Your task to perform on an android device: What's on my calendar tomorrow? Image 0: 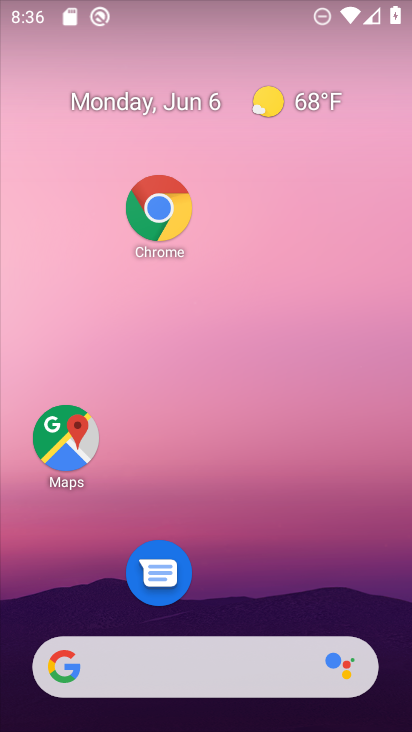
Step 0: drag from (299, 706) to (223, 261)
Your task to perform on an android device: What's on my calendar tomorrow? Image 1: 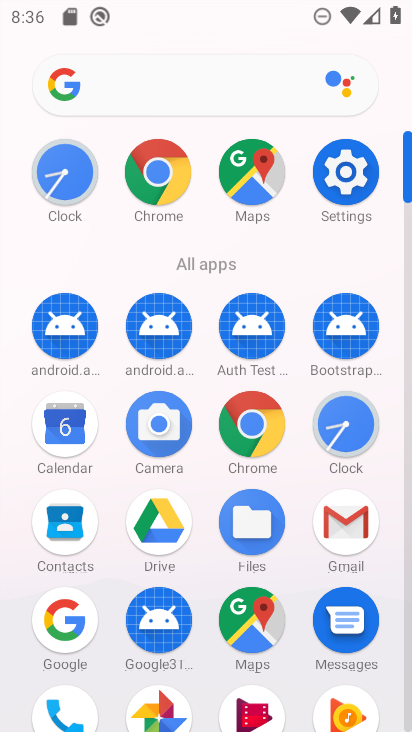
Step 1: click (59, 427)
Your task to perform on an android device: What's on my calendar tomorrow? Image 2: 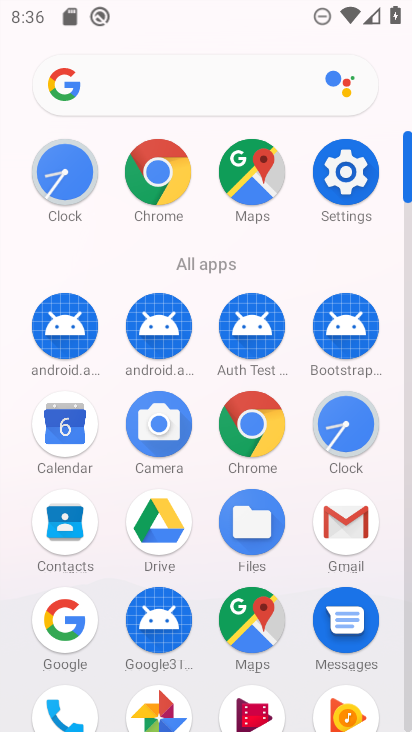
Step 2: click (59, 427)
Your task to perform on an android device: What's on my calendar tomorrow? Image 3: 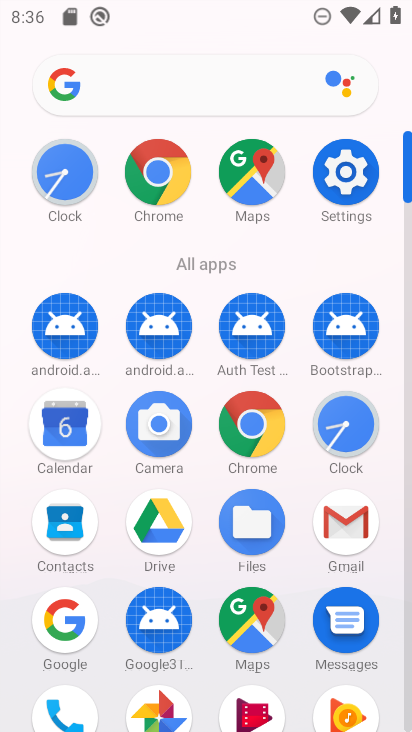
Step 3: click (60, 427)
Your task to perform on an android device: What's on my calendar tomorrow? Image 4: 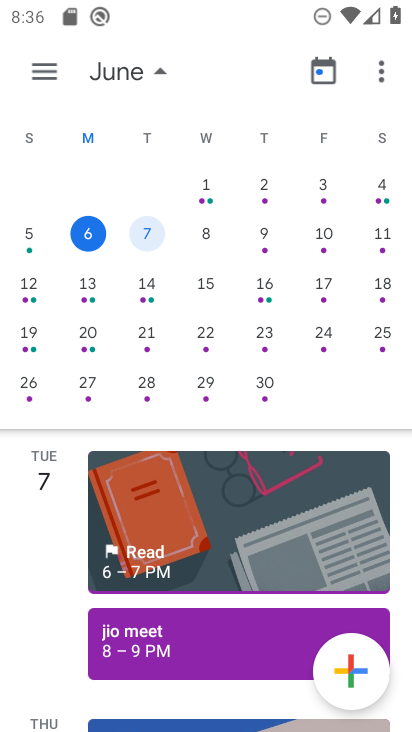
Step 4: click (210, 230)
Your task to perform on an android device: What's on my calendar tomorrow? Image 5: 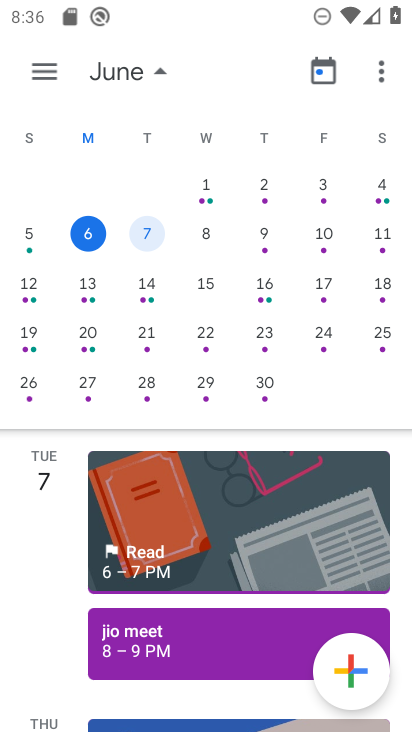
Step 5: click (208, 229)
Your task to perform on an android device: What's on my calendar tomorrow? Image 6: 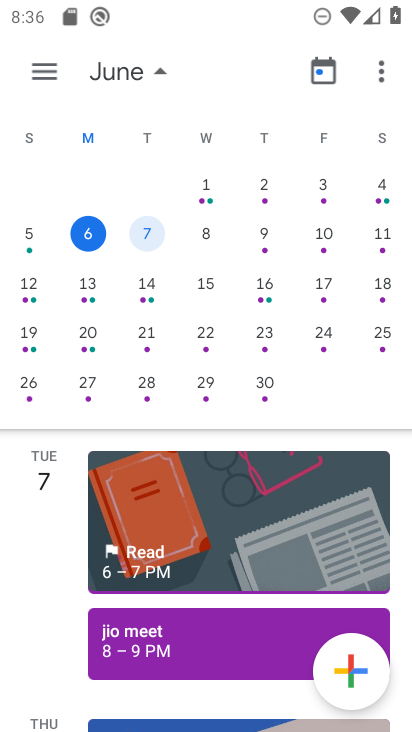
Step 6: click (208, 229)
Your task to perform on an android device: What's on my calendar tomorrow? Image 7: 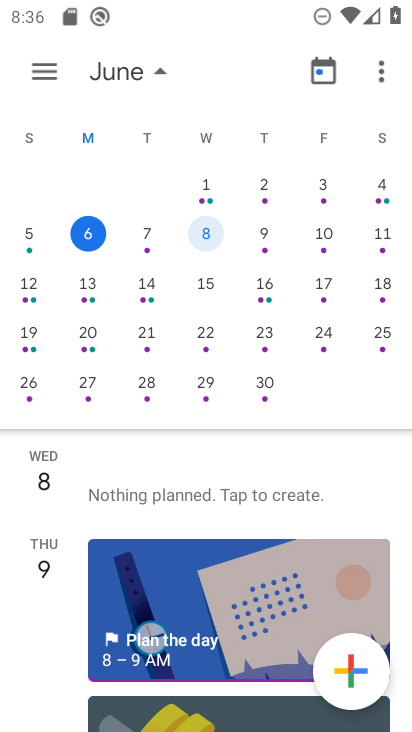
Step 7: task complete